Your task to perform on an android device: toggle translation in the chrome app Image 0: 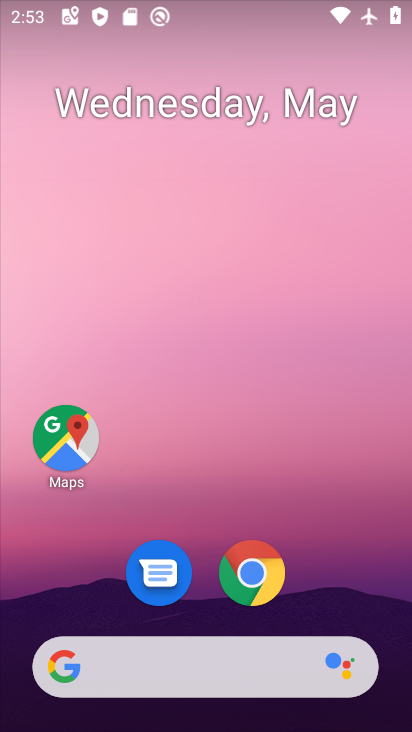
Step 0: click (245, 570)
Your task to perform on an android device: toggle translation in the chrome app Image 1: 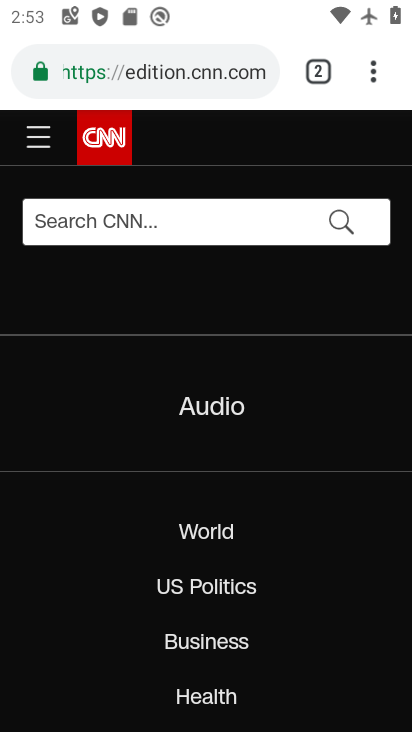
Step 1: click (389, 78)
Your task to perform on an android device: toggle translation in the chrome app Image 2: 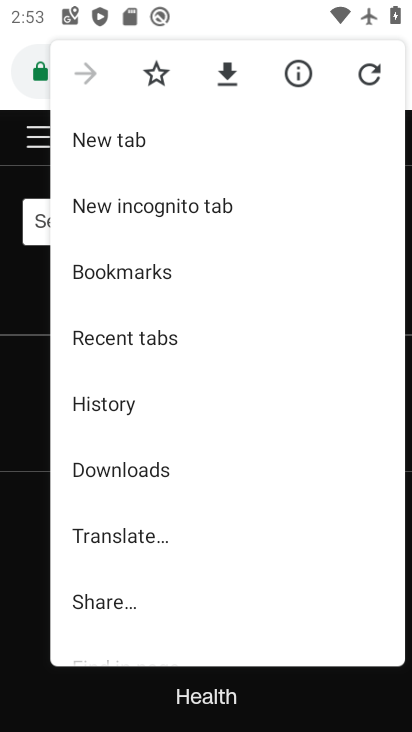
Step 2: drag from (204, 563) to (167, 212)
Your task to perform on an android device: toggle translation in the chrome app Image 3: 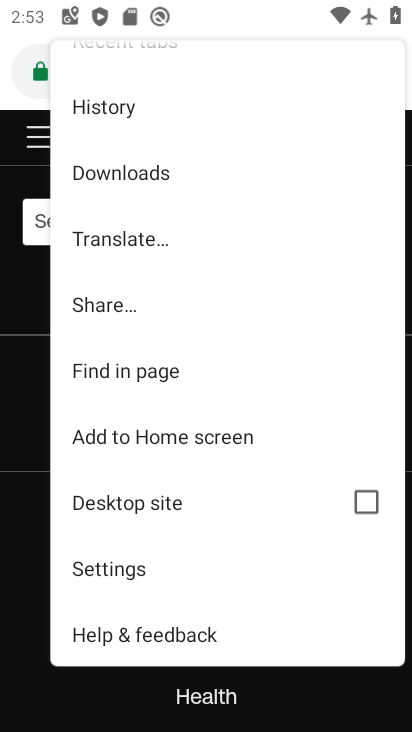
Step 3: click (153, 566)
Your task to perform on an android device: toggle translation in the chrome app Image 4: 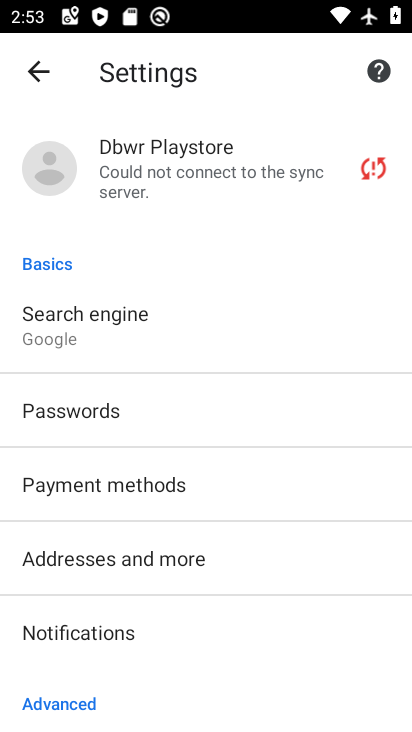
Step 4: drag from (220, 669) to (207, 373)
Your task to perform on an android device: toggle translation in the chrome app Image 5: 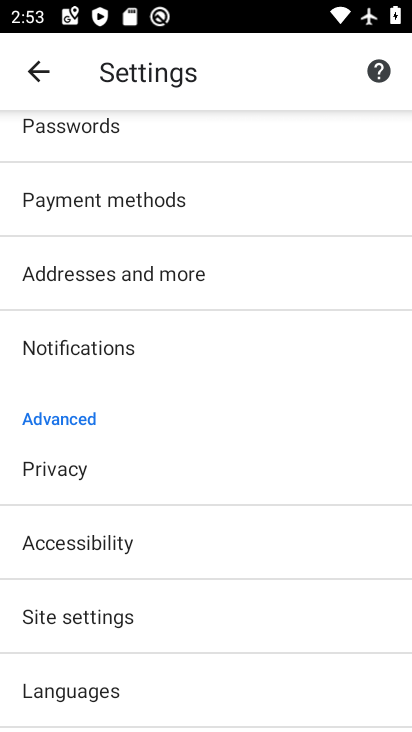
Step 5: click (99, 677)
Your task to perform on an android device: toggle translation in the chrome app Image 6: 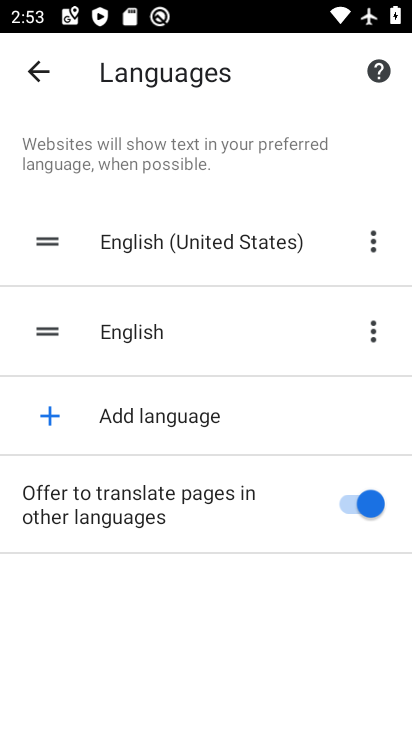
Step 6: click (356, 517)
Your task to perform on an android device: toggle translation in the chrome app Image 7: 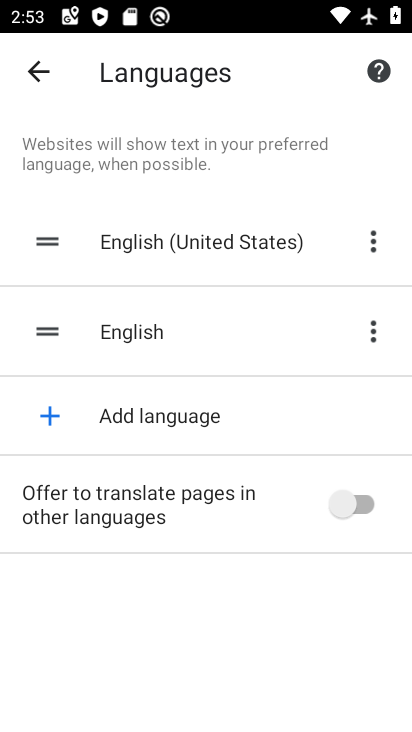
Step 7: task complete